Your task to perform on an android device: Open Amazon Image 0: 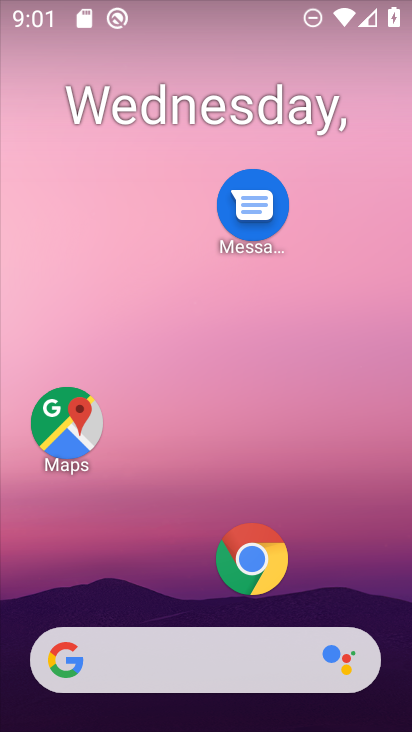
Step 0: drag from (272, 576) to (237, 107)
Your task to perform on an android device: Open Amazon Image 1: 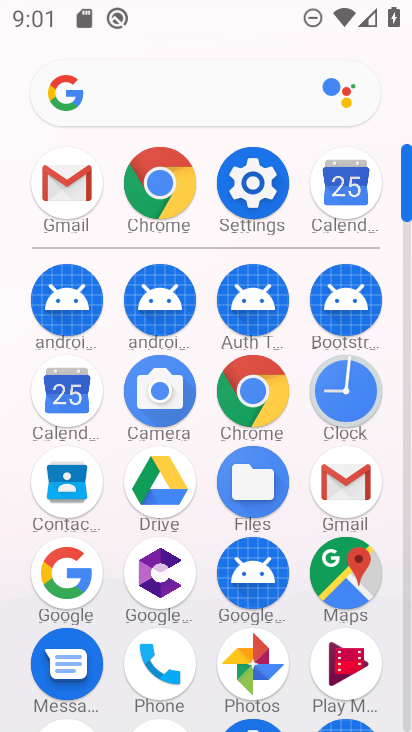
Step 1: drag from (244, 498) to (256, 189)
Your task to perform on an android device: Open Amazon Image 2: 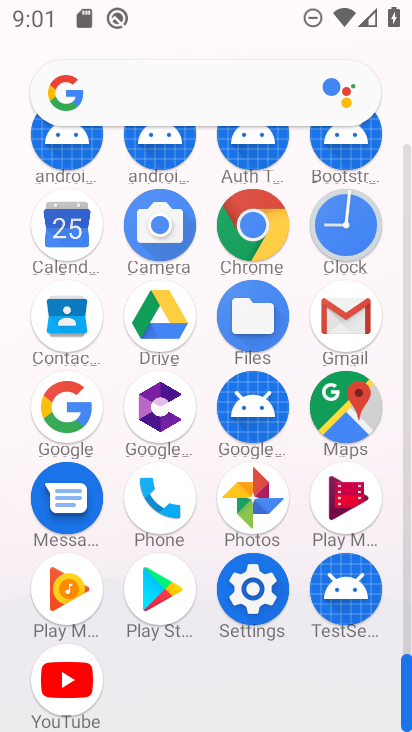
Step 2: click (268, 237)
Your task to perform on an android device: Open Amazon Image 3: 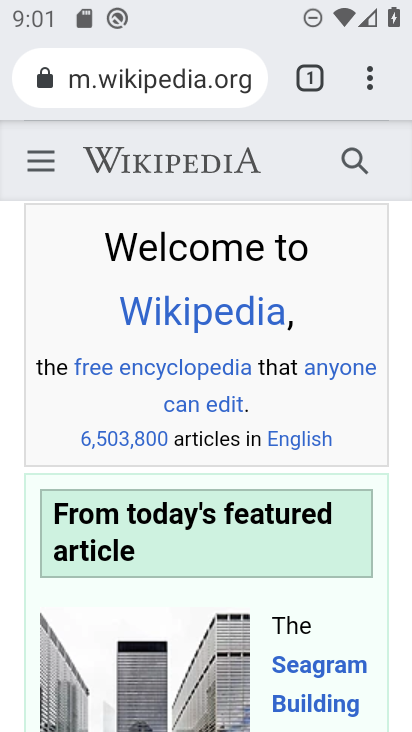
Step 3: click (198, 83)
Your task to perform on an android device: Open Amazon Image 4: 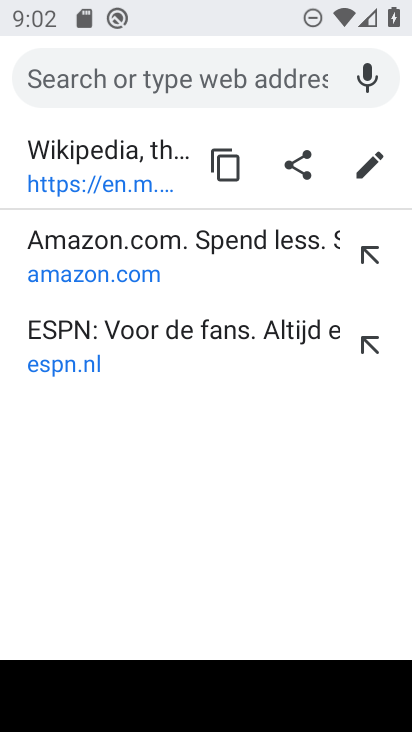
Step 4: click (202, 258)
Your task to perform on an android device: Open Amazon Image 5: 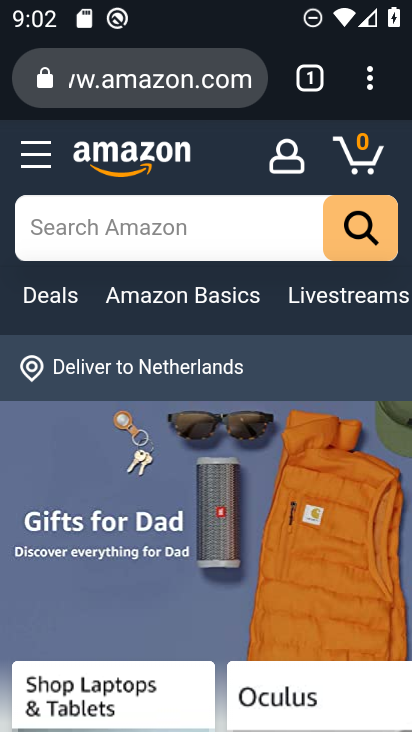
Step 5: task complete